Your task to perform on an android device: move a message to another label in the gmail app Image 0: 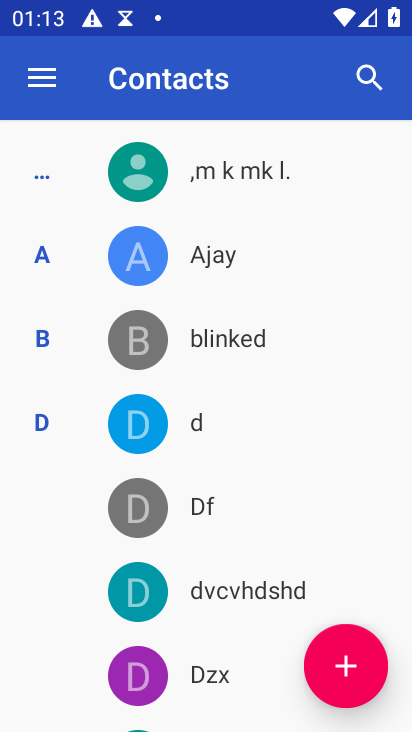
Step 0: press home button
Your task to perform on an android device: move a message to another label in the gmail app Image 1: 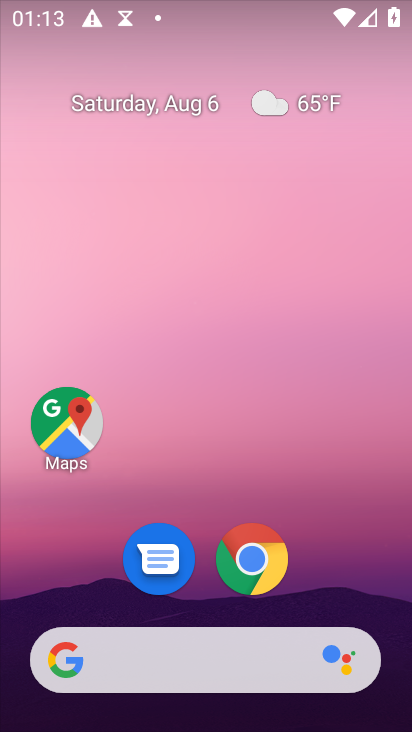
Step 1: drag from (348, 595) to (245, 219)
Your task to perform on an android device: move a message to another label in the gmail app Image 2: 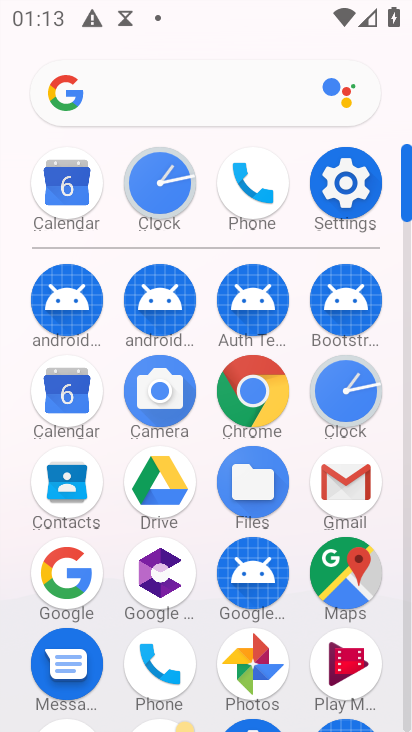
Step 2: click (346, 473)
Your task to perform on an android device: move a message to another label in the gmail app Image 3: 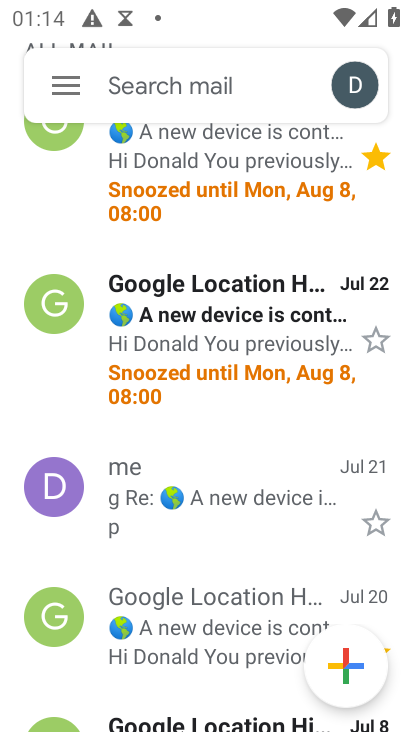
Step 3: click (234, 504)
Your task to perform on an android device: move a message to another label in the gmail app Image 4: 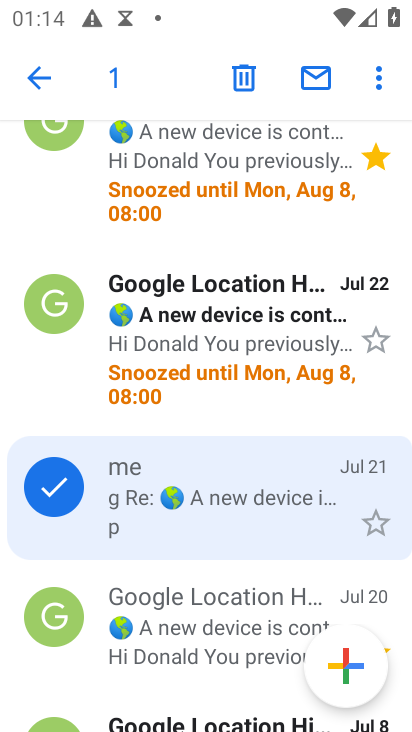
Step 4: click (379, 89)
Your task to perform on an android device: move a message to another label in the gmail app Image 5: 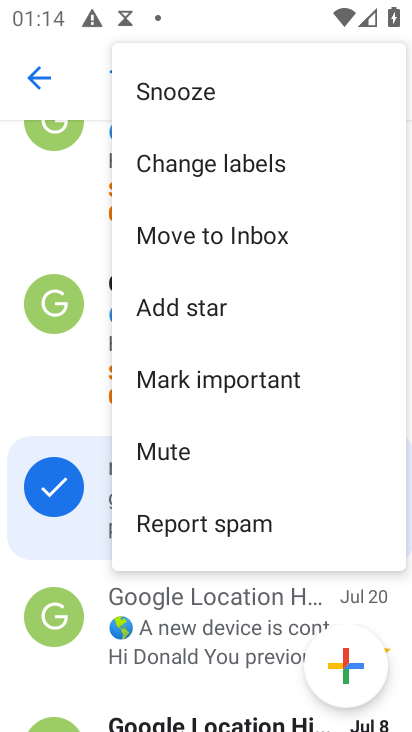
Step 5: click (310, 172)
Your task to perform on an android device: move a message to another label in the gmail app Image 6: 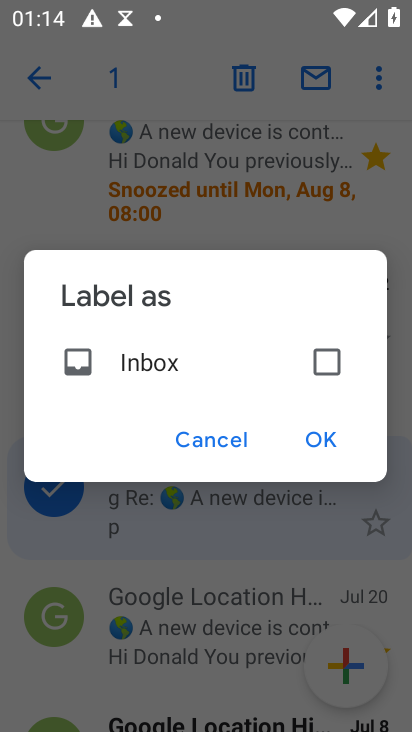
Step 6: click (345, 334)
Your task to perform on an android device: move a message to another label in the gmail app Image 7: 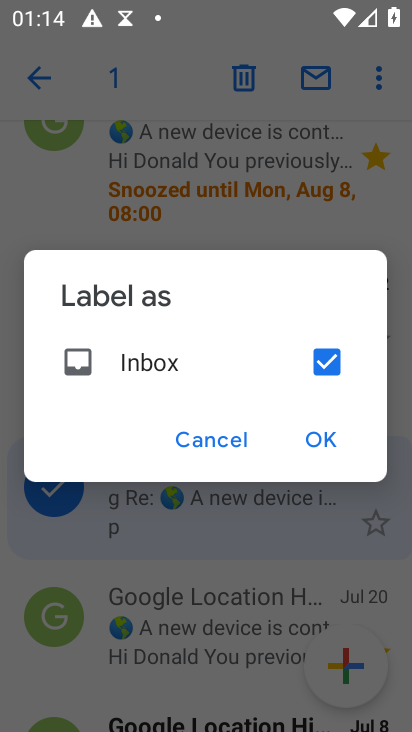
Step 7: click (329, 430)
Your task to perform on an android device: move a message to another label in the gmail app Image 8: 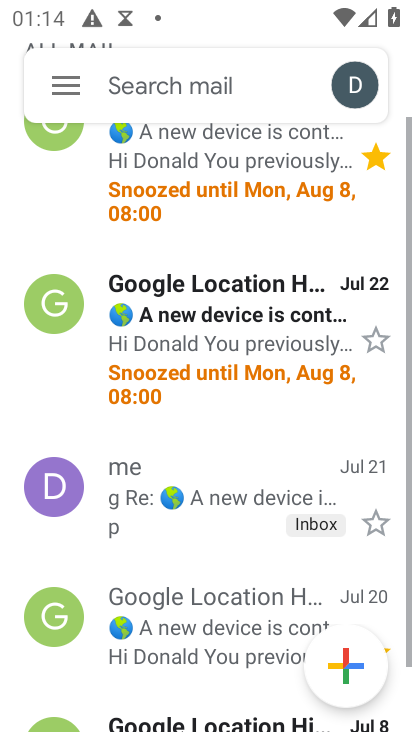
Step 8: task complete